Your task to perform on an android device: turn off translation in the chrome app Image 0: 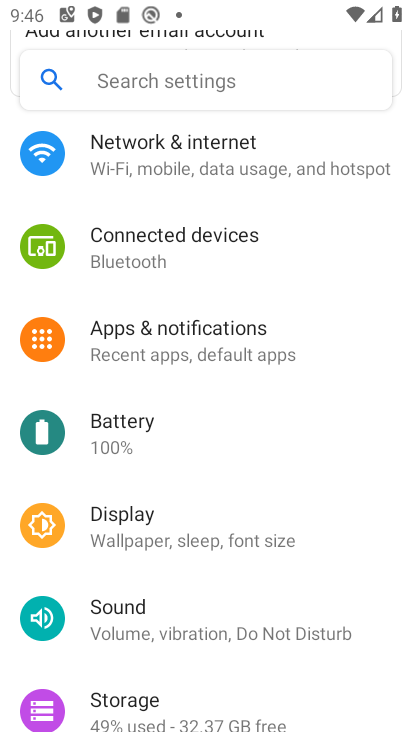
Step 0: press home button
Your task to perform on an android device: turn off translation in the chrome app Image 1: 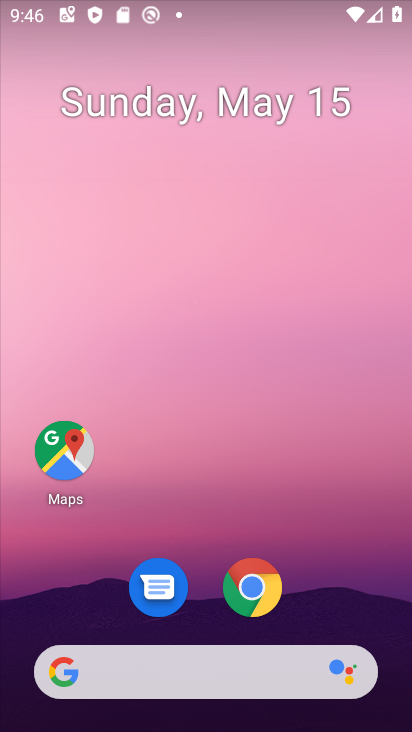
Step 1: drag from (377, 608) to (297, 134)
Your task to perform on an android device: turn off translation in the chrome app Image 2: 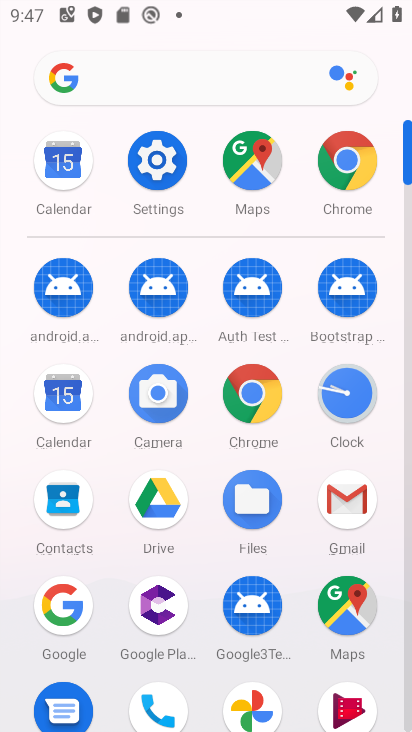
Step 2: click (349, 144)
Your task to perform on an android device: turn off translation in the chrome app Image 3: 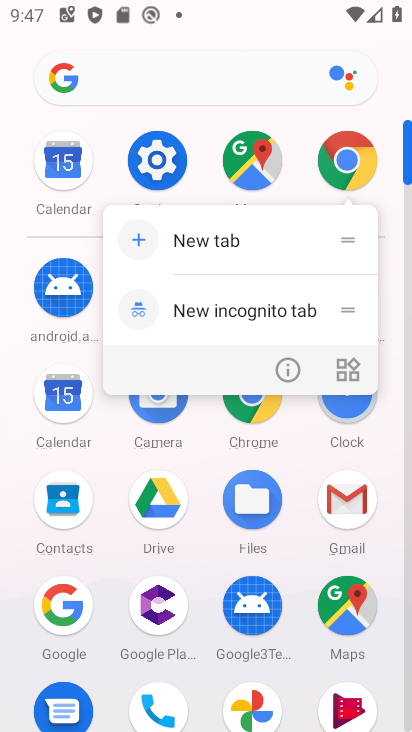
Step 3: click (349, 145)
Your task to perform on an android device: turn off translation in the chrome app Image 4: 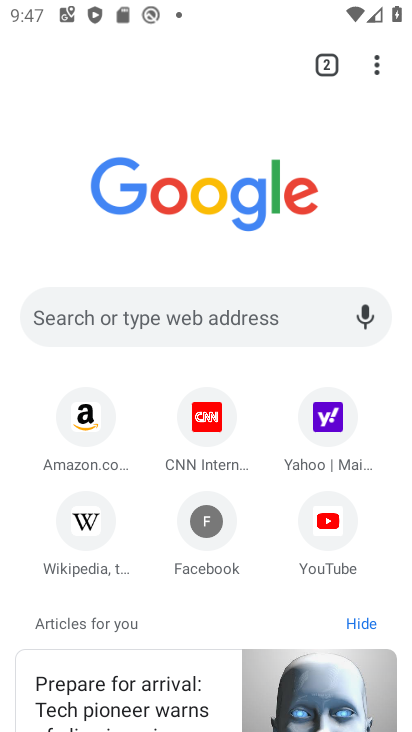
Step 4: click (379, 55)
Your task to perform on an android device: turn off translation in the chrome app Image 5: 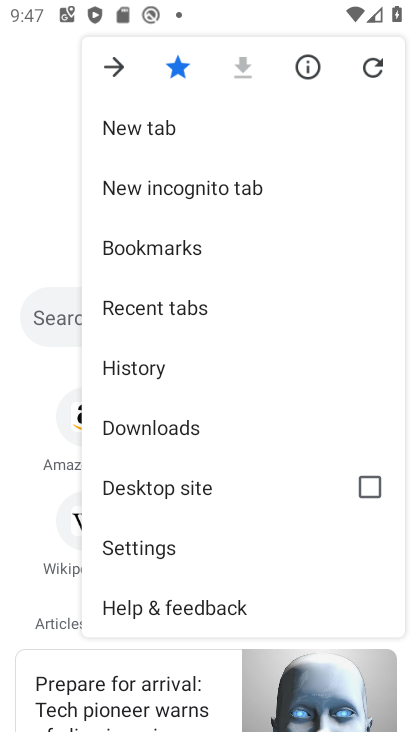
Step 5: click (174, 550)
Your task to perform on an android device: turn off translation in the chrome app Image 6: 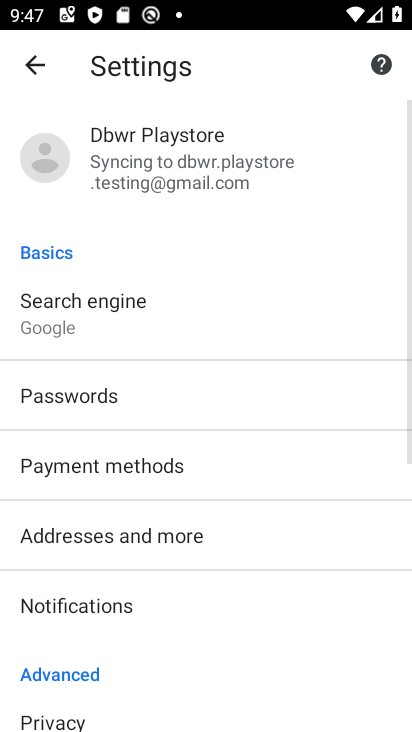
Step 6: drag from (176, 612) to (211, 231)
Your task to perform on an android device: turn off translation in the chrome app Image 7: 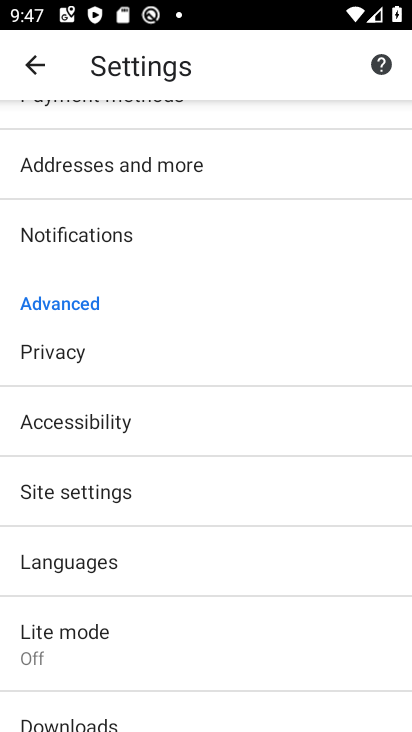
Step 7: click (156, 572)
Your task to perform on an android device: turn off translation in the chrome app Image 8: 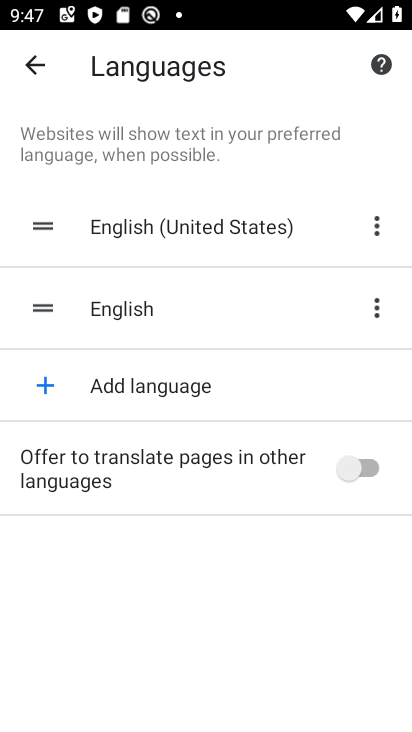
Step 8: task complete